Your task to perform on an android device: see sites visited before in the chrome app Image 0: 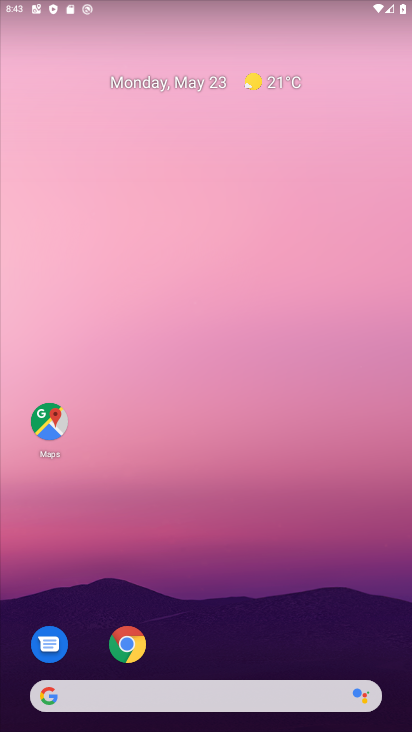
Step 0: click (131, 638)
Your task to perform on an android device: see sites visited before in the chrome app Image 1: 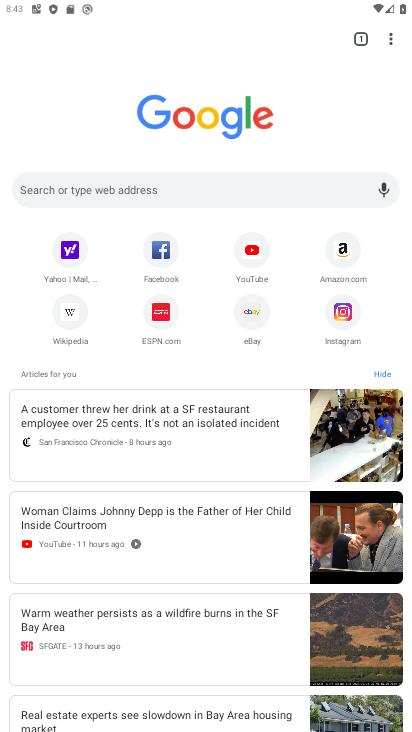
Step 1: click (385, 37)
Your task to perform on an android device: see sites visited before in the chrome app Image 2: 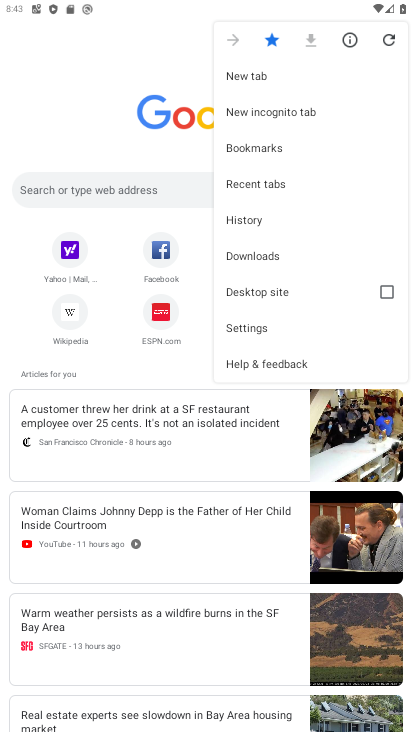
Step 2: click (276, 189)
Your task to perform on an android device: see sites visited before in the chrome app Image 3: 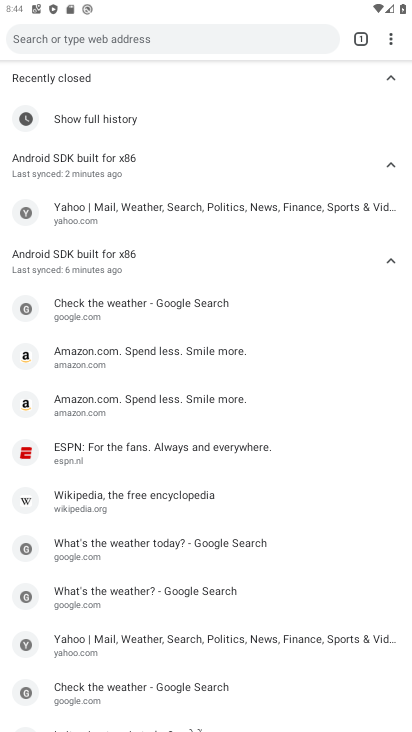
Step 3: task complete